Your task to perform on an android device: When is my next appointment? Image 0: 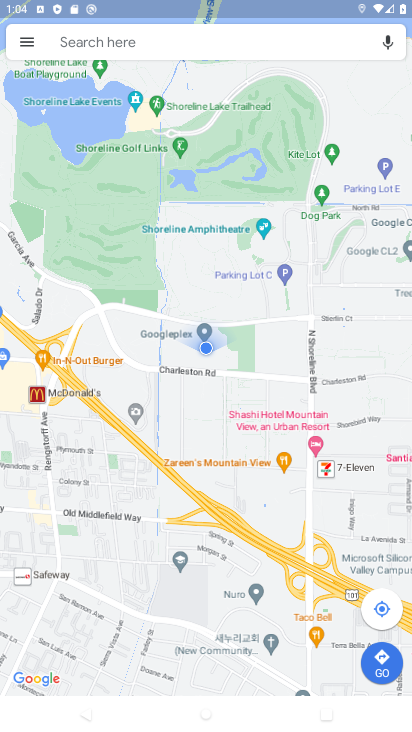
Step 0: press home button
Your task to perform on an android device: When is my next appointment? Image 1: 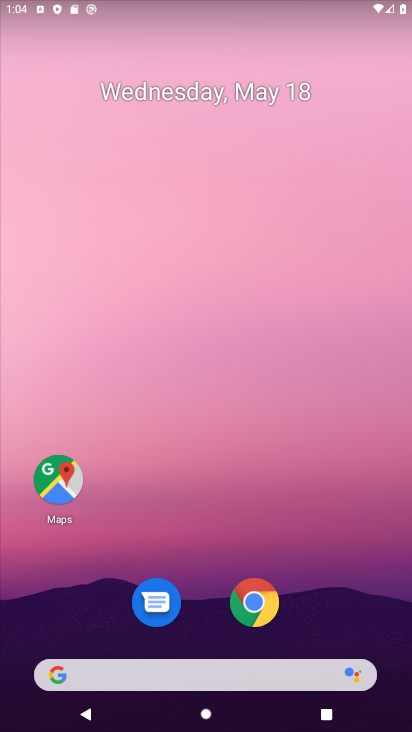
Step 1: drag from (249, 709) to (395, 285)
Your task to perform on an android device: When is my next appointment? Image 2: 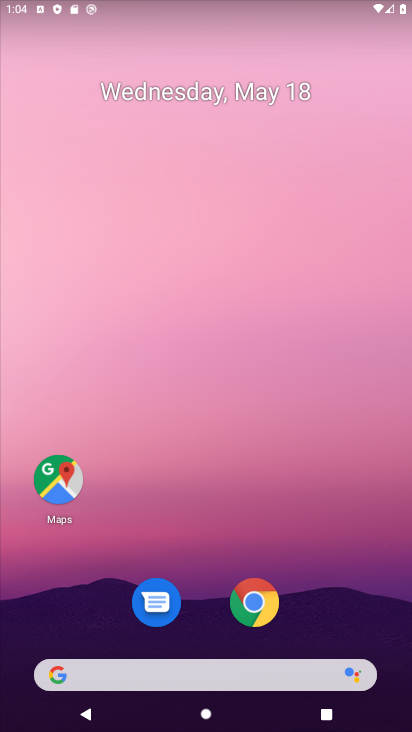
Step 2: drag from (279, 720) to (372, 83)
Your task to perform on an android device: When is my next appointment? Image 3: 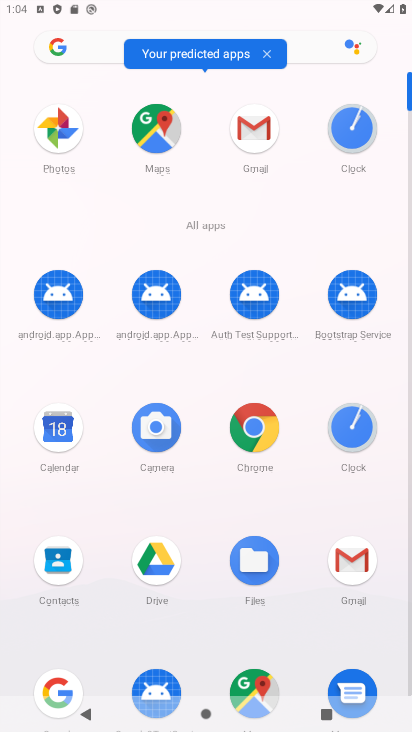
Step 3: click (64, 430)
Your task to perform on an android device: When is my next appointment? Image 4: 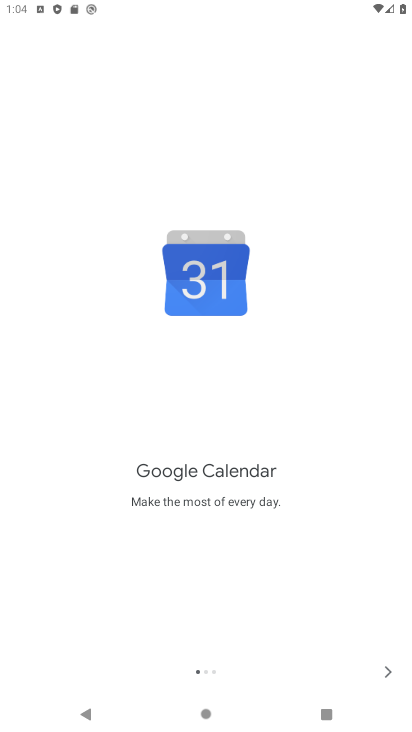
Step 4: click (391, 669)
Your task to perform on an android device: When is my next appointment? Image 5: 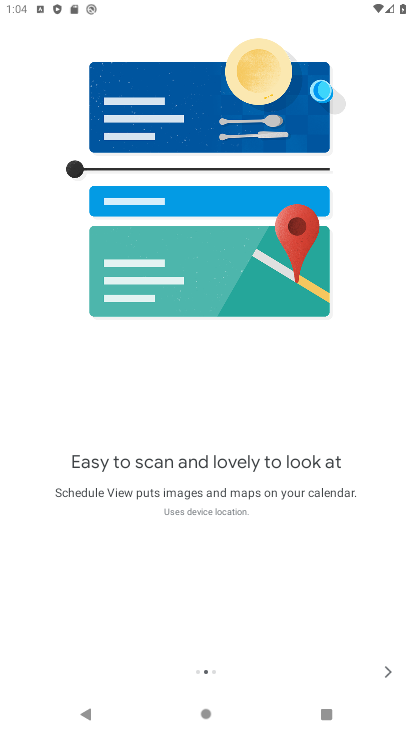
Step 5: click (391, 669)
Your task to perform on an android device: When is my next appointment? Image 6: 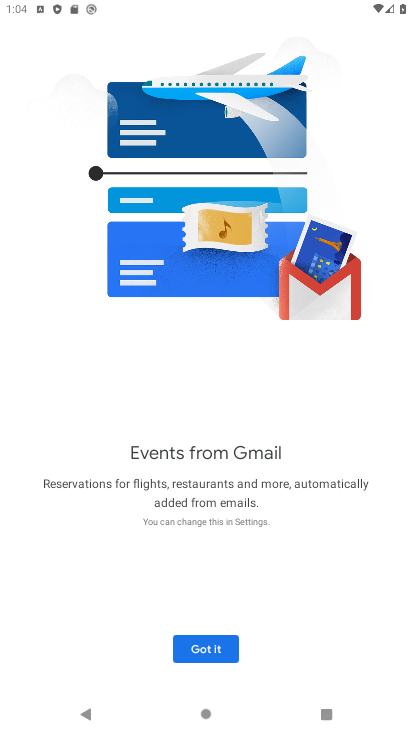
Step 6: click (219, 656)
Your task to perform on an android device: When is my next appointment? Image 7: 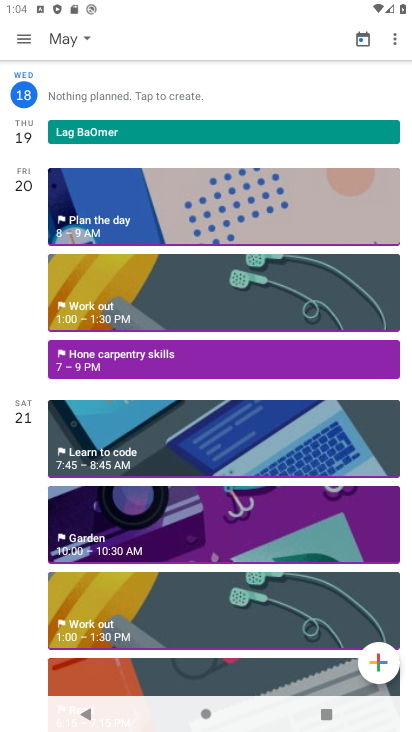
Step 7: click (23, 44)
Your task to perform on an android device: When is my next appointment? Image 8: 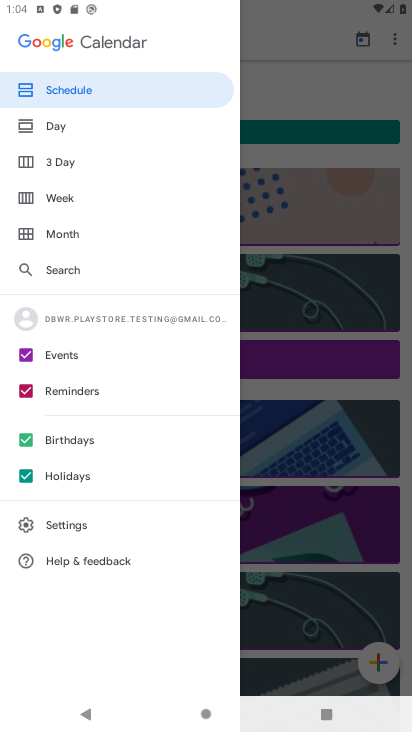
Step 8: click (173, 93)
Your task to perform on an android device: When is my next appointment? Image 9: 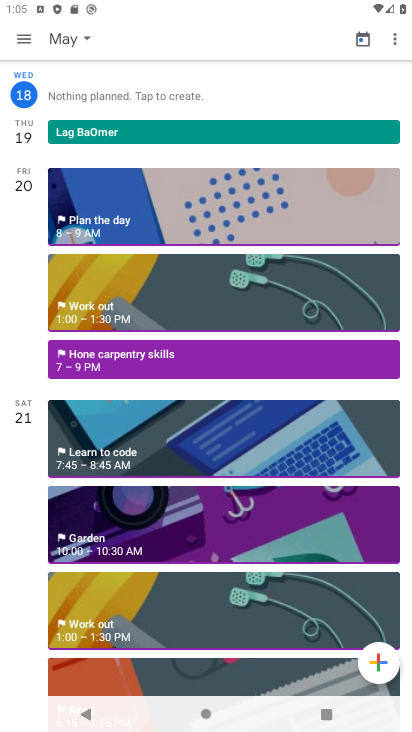
Step 9: task complete